Your task to perform on an android device: uninstall "Gmail" Image 0: 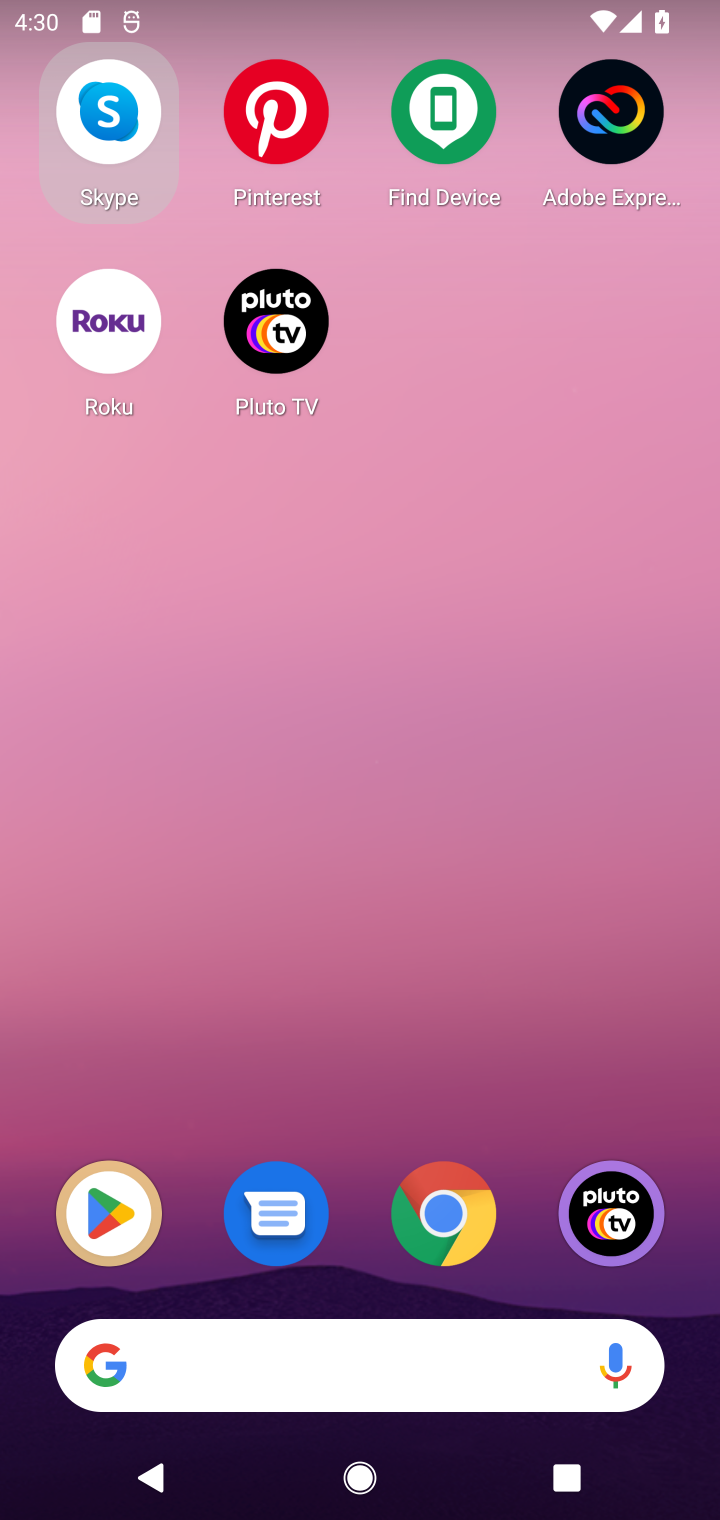
Step 0: drag from (595, 947) to (622, 131)
Your task to perform on an android device: uninstall "Gmail" Image 1: 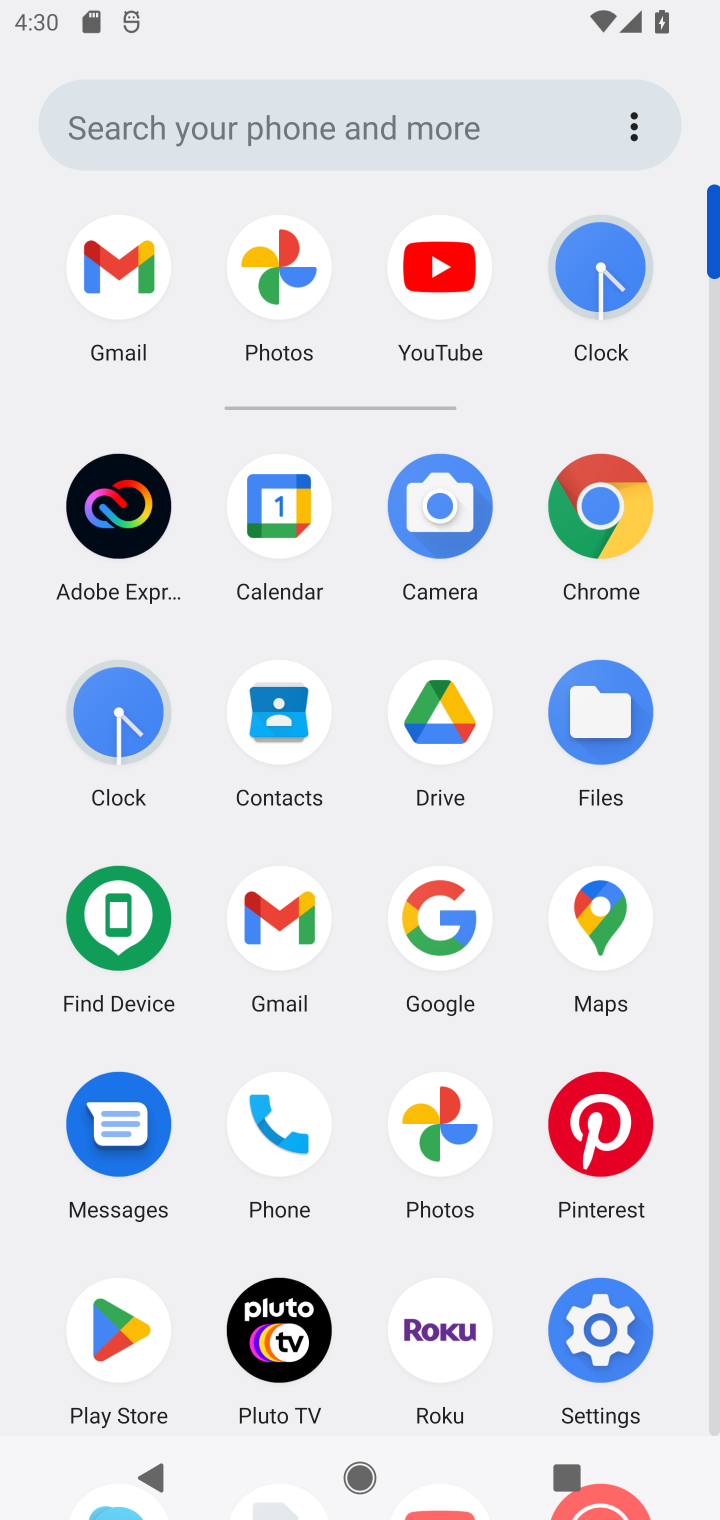
Step 1: drag from (361, 1141) to (406, 547)
Your task to perform on an android device: uninstall "Gmail" Image 2: 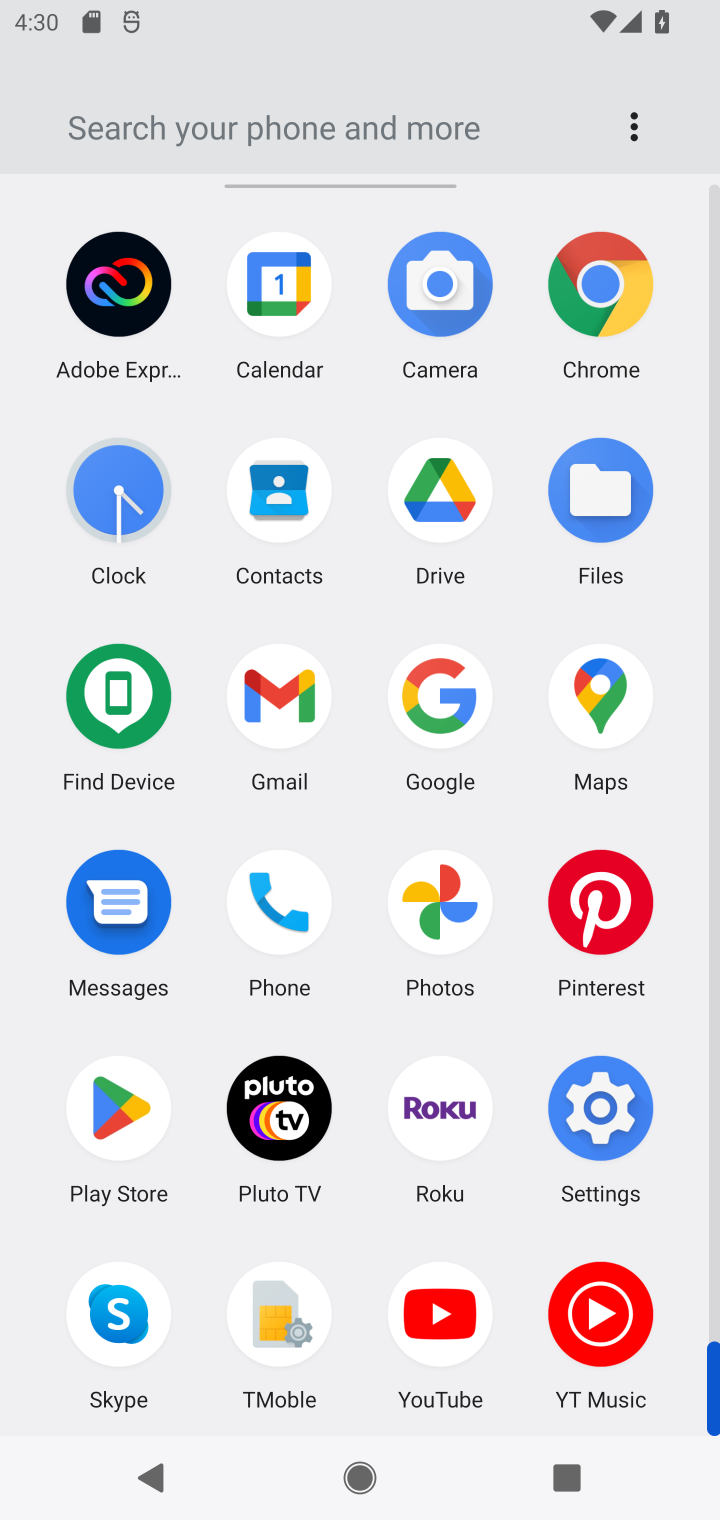
Step 2: click (126, 1123)
Your task to perform on an android device: uninstall "Gmail" Image 3: 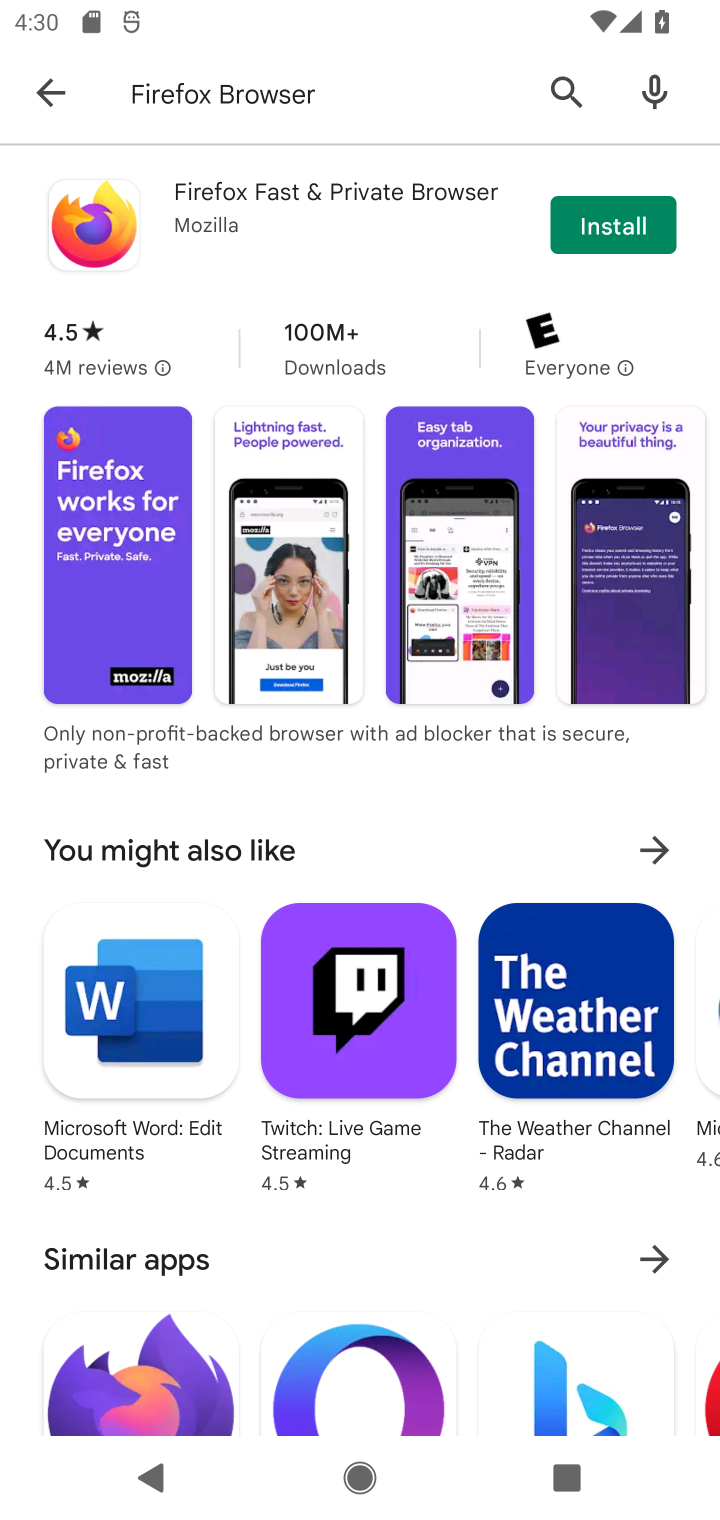
Step 3: click (429, 117)
Your task to perform on an android device: uninstall "Gmail" Image 4: 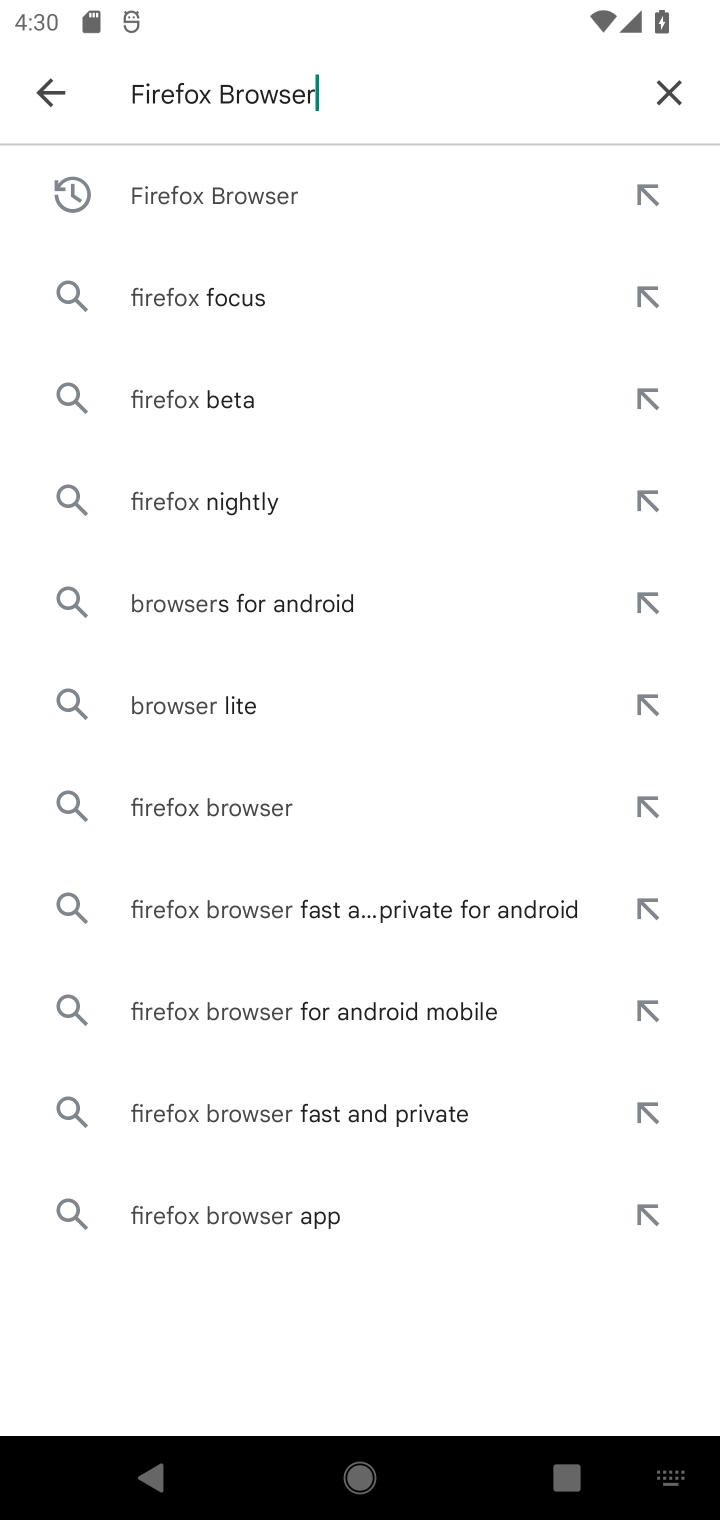
Step 4: click (683, 95)
Your task to perform on an android device: uninstall "Gmail" Image 5: 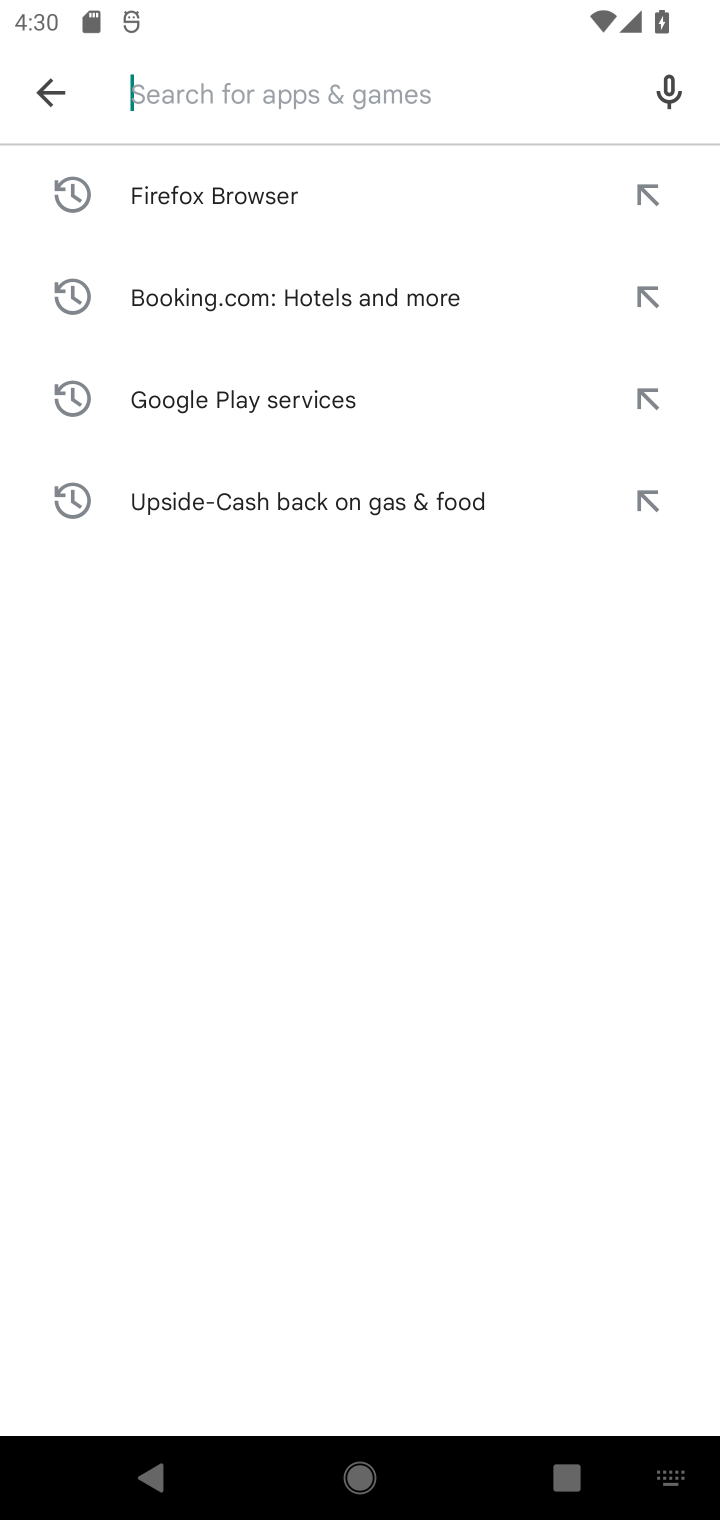
Step 5: type "Gmail"
Your task to perform on an android device: uninstall "Gmail" Image 6: 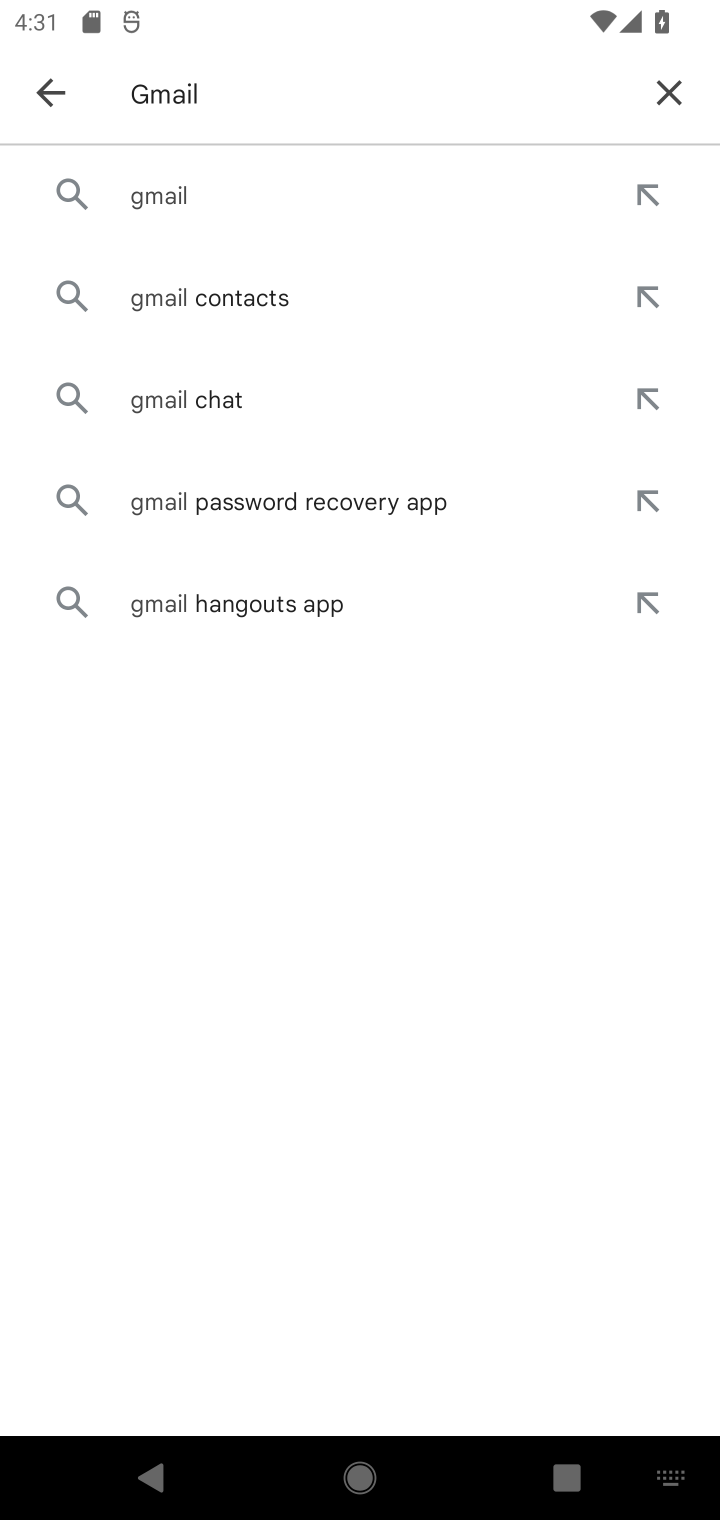
Step 6: press enter
Your task to perform on an android device: uninstall "Gmail" Image 7: 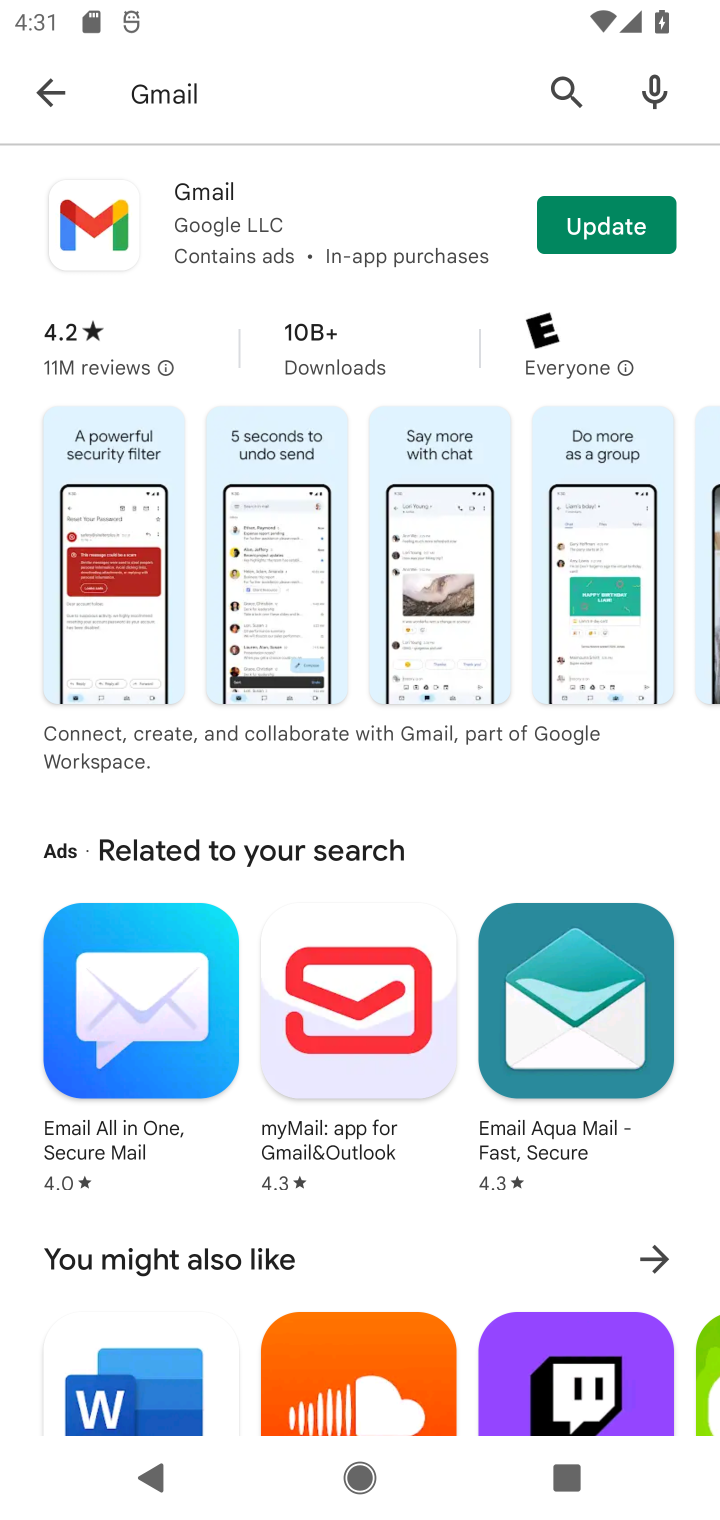
Step 7: task complete